Your task to perform on an android device: turn pop-ups off in chrome Image 0: 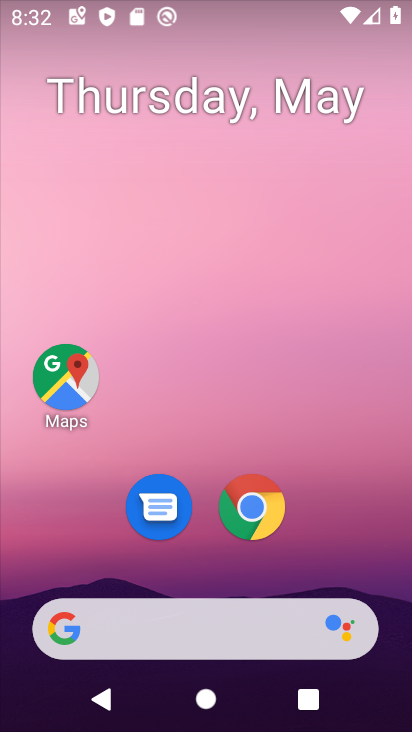
Step 0: drag from (247, 664) to (344, 248)
Your task to perform on an android device: turn pop-ups off in chrome Image 1: 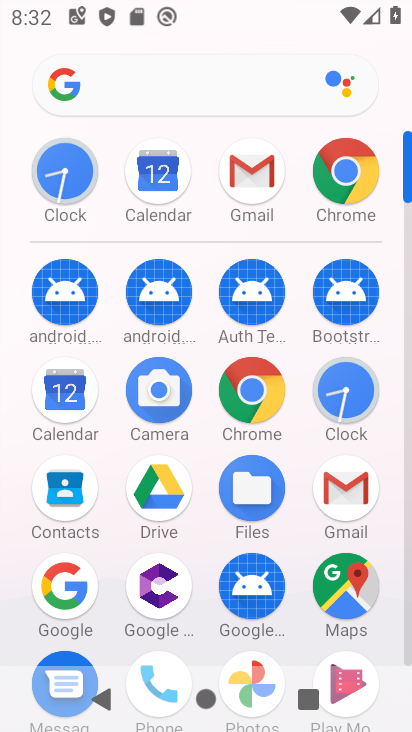
Step 1: click (268, 398)
Your task to perform on an android device: turn pop-ups off in chrome Image 2: 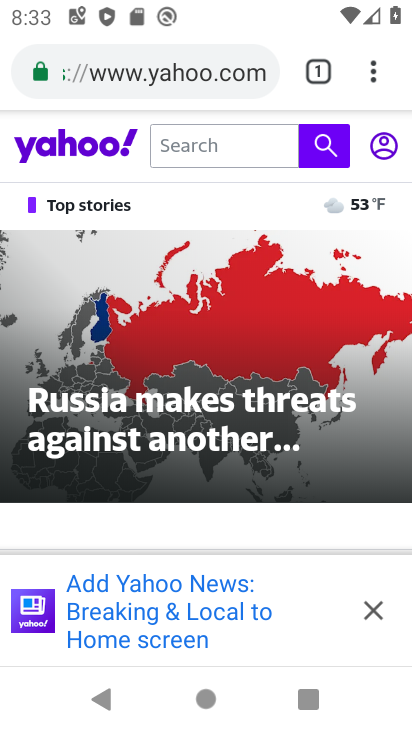
Step 2: click (370, 69)
Your task to perform on an android device: turn pop-ups off in chrome Image 3: 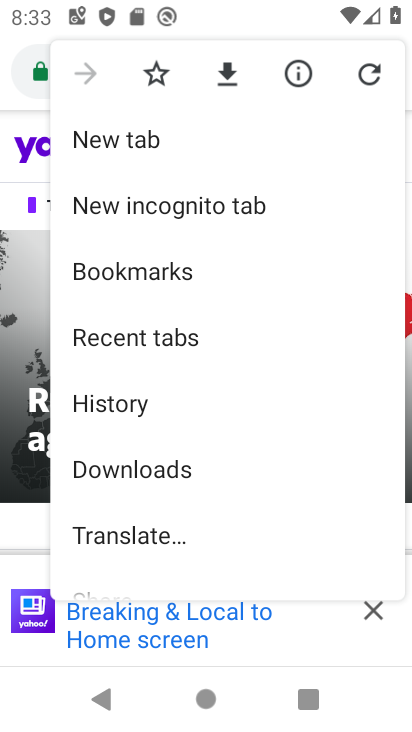
Step 3: drag from (134, 511) to (167, 345)
Your task to perform on an android device: turn pop-ups off in chrome Image 4: 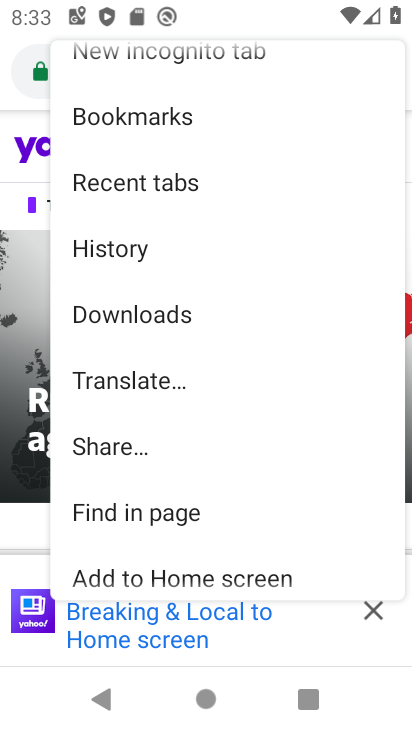
Step 4: drag from (140, 528) to (206, 345)
Your task to perform on an android device: turn pop-ups off in chrome Image 5: 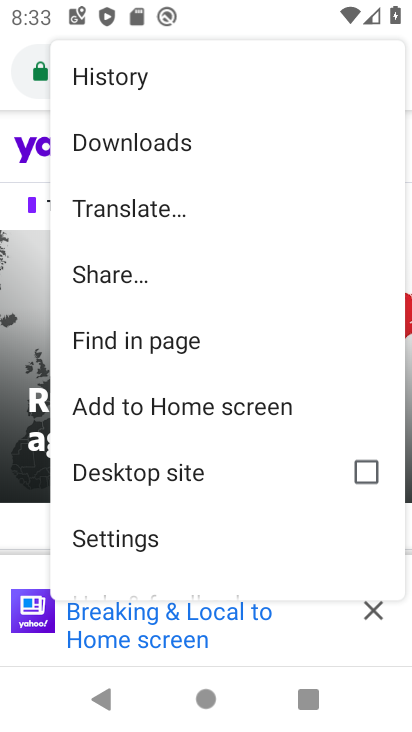
Step 5: click (122, 535)
Your task to perform on an android device: turn pop-ups off in chrome Image 6: 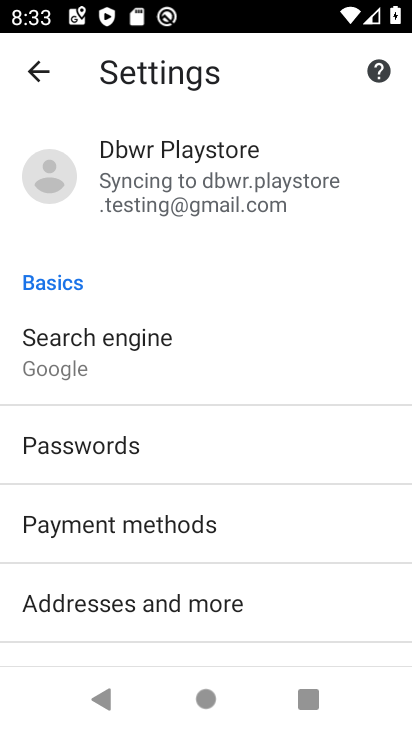
Step 6: drag from (121, 552) to (239, 243)
Your task to perform on an android device: turn pop-ups off in chrome Image 7: 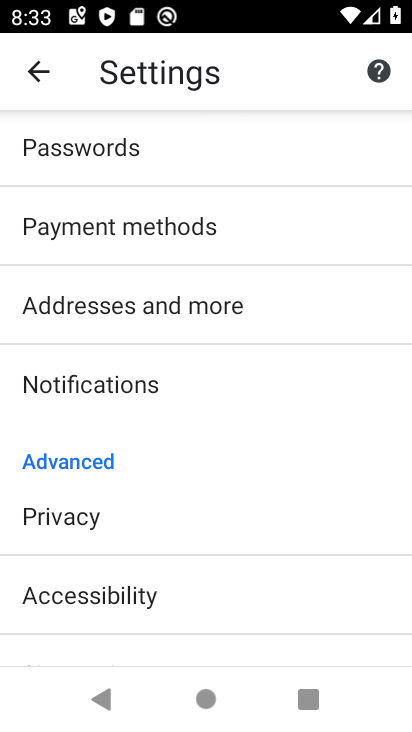
Step 7: drag from (181, 599) to (283, 296)
Your task to perform on an android device: turn pop-ups off in chrome Image 8: 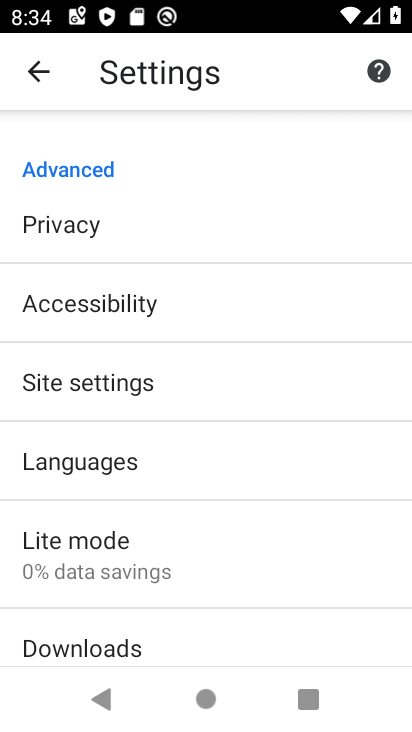
Step 8: click (121, 378)
Your task to perform on an android device: turn pop-ups off in chrome Image 9: 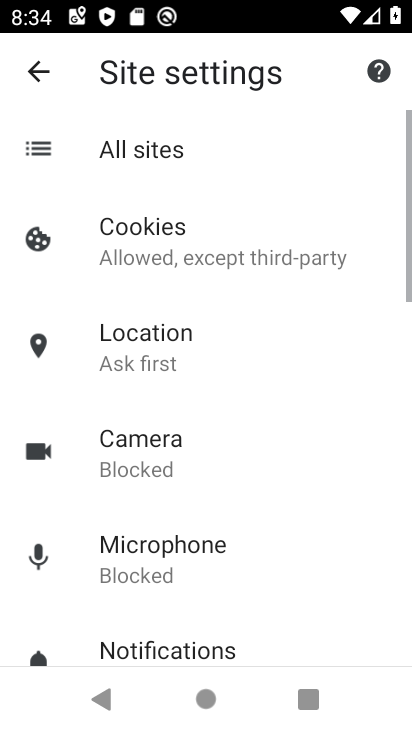
Step 9: drag from (195, 572) to (298, 185)
Your task to perform on an android device: turn pop-ups off in chrome Image 10: 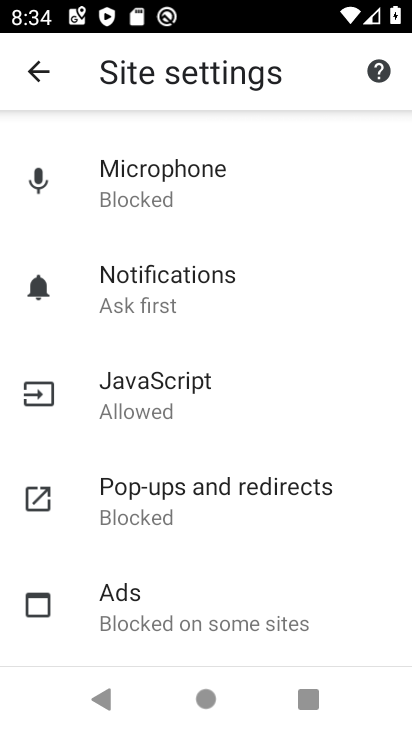
Step 10: click (194, 489)
Your task to perform on an android device: turn pop-ups off in chrome Image 11: 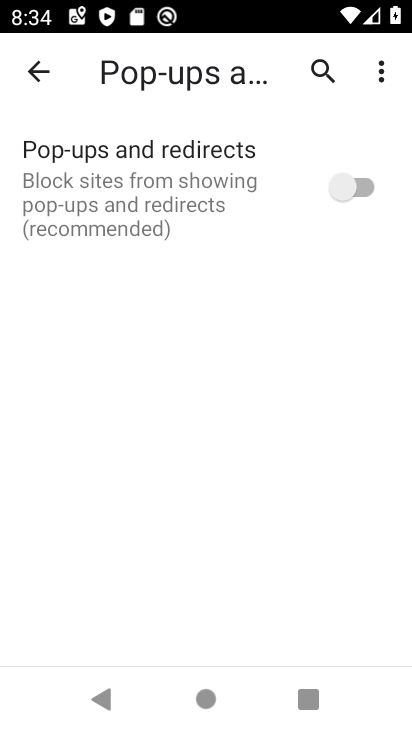
Step 11: click (362, 184)
Your task to perform on an android device: turn pop-ups off in chrome Image 12: 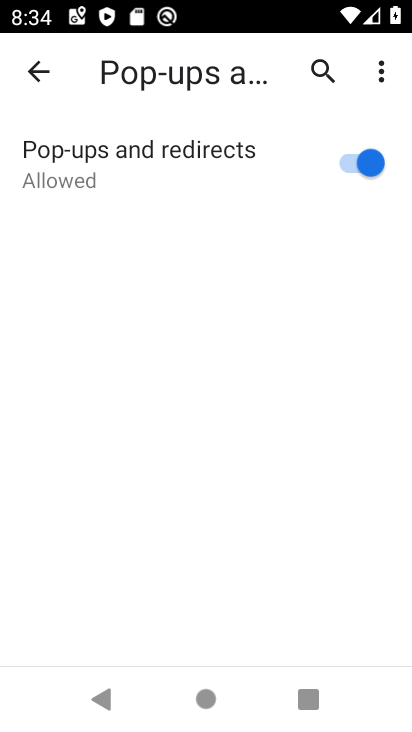
Step 12: click (362, 184)
Your task to perform on an android device: turn pop-ups off in chrome Image 13: 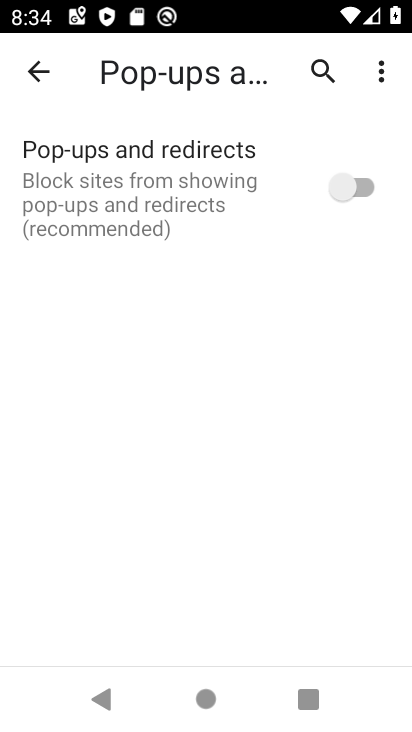
Step 13: task complete